Your task to perform on an android device: Search for Mexican restaurants on Maps Image 0: 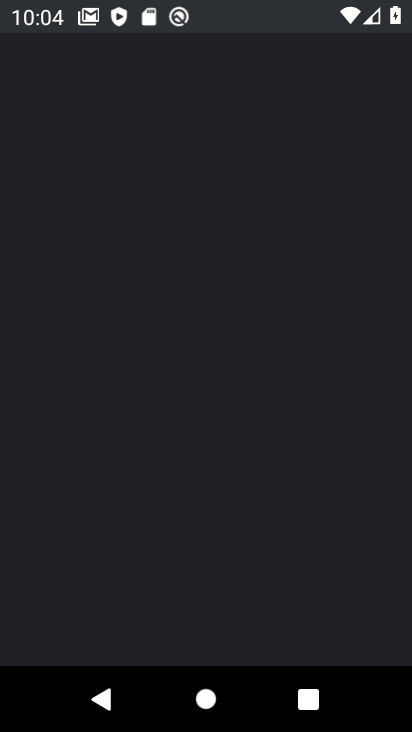
Step 0: drag from (104, 556) to (122, 248)
Your task to perform on an android device: Search for Mexican restaurants on Maps Image 1: 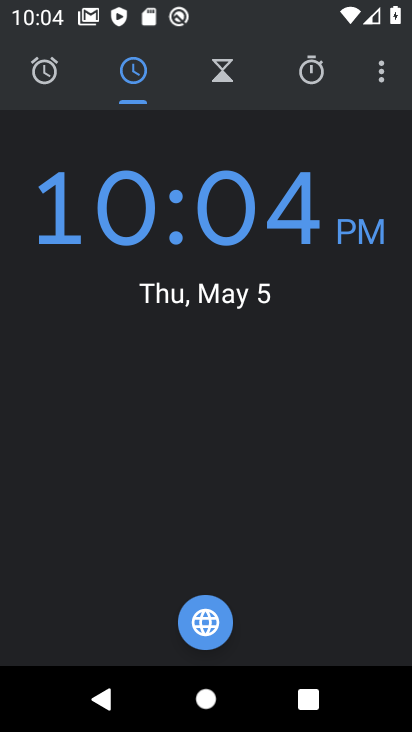
Step 1: press home button
Your task to perform on an android device: Search for Mexican restaurants on Maps Image 2: 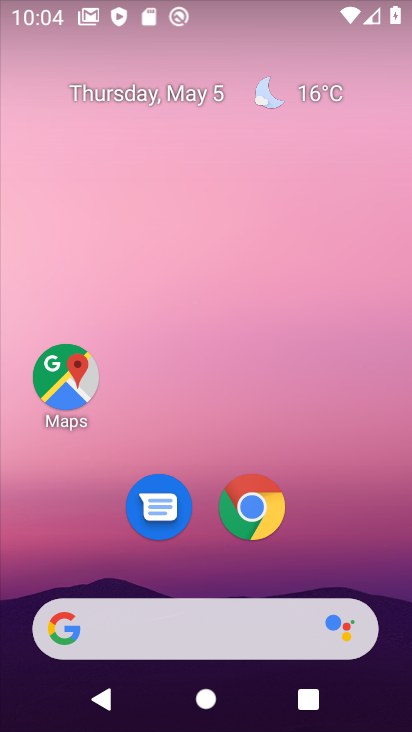
Step 2: click (59, 387)
Your task to perform on an android device: Search for Mexican restaurants on Maps Image 3: 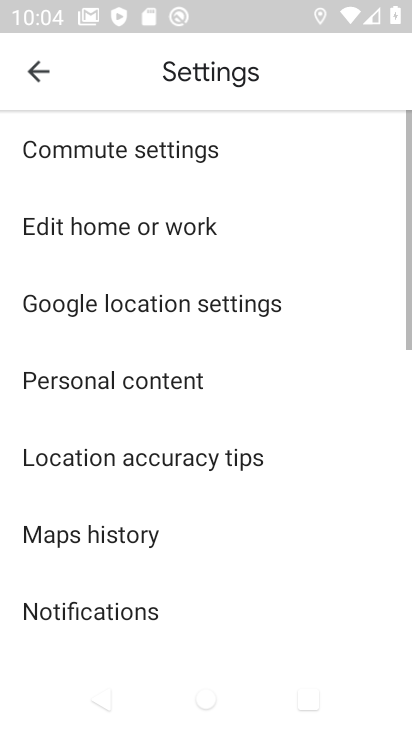
Step 3: click (37, 76)
Your task to perform on an android device: Search for Mexican restaurants on Maps Image 4: 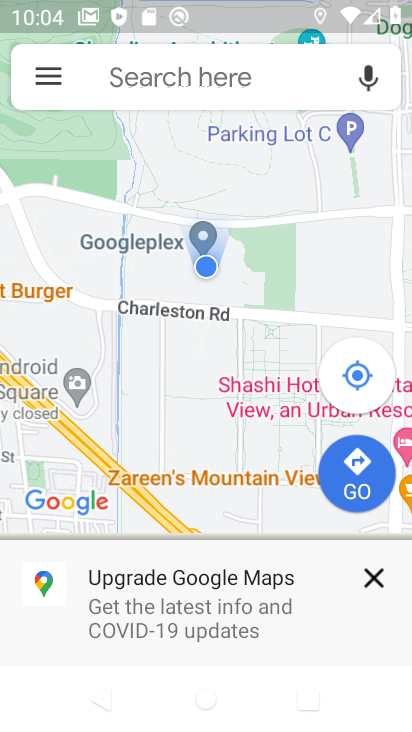
Step 4: click (171, 79)
Your task to perform on an android device: Search for Mexican restaurants on Maps Image 5: 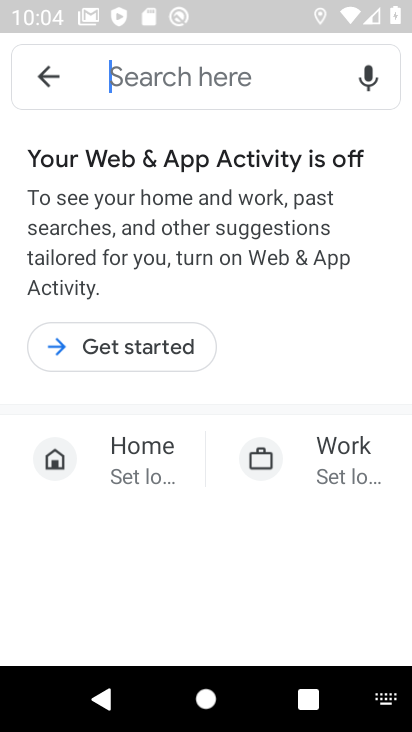
Step 5: type "Mexican restaurants"
Your task to perform on an android device: Search for Mexican restaurants on Maps Image 6: 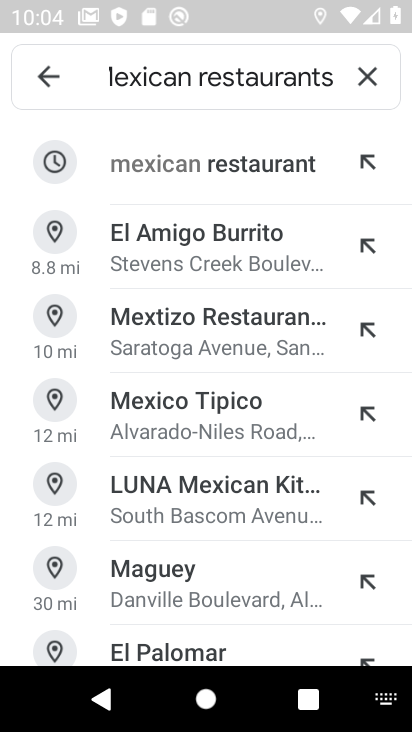
Step 6: click (117, 165)
Your task to perform on an android device: Search for Mexican restaurants on Maps Image 7: 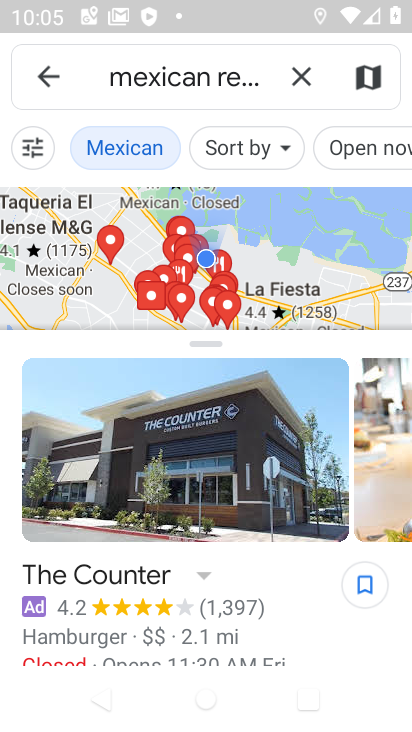
Step 7: task complete